Your task to perform on an android device: Go to eBay Image 0: 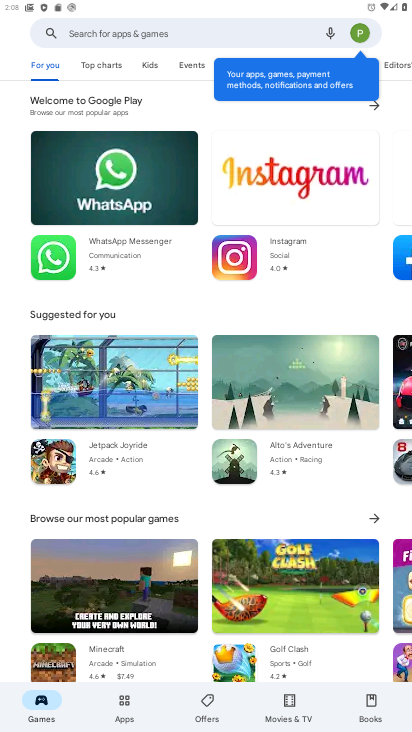
Step 0: press home button
Your task to perform on an android device: Go to eBay Image 1: 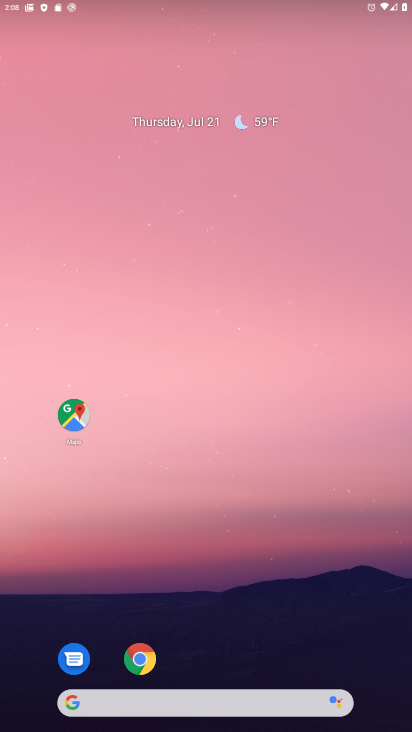
Step 1: drag from (350, 642) to (234, 58)
Your task to perform on an android device: Go to eBay Image 2: 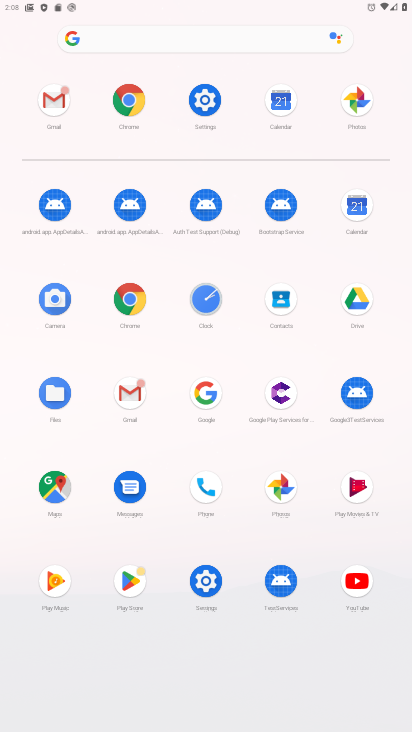
Step 2: click (134, 301)
Your task to perform on an android device: Go to eBay Image 3: 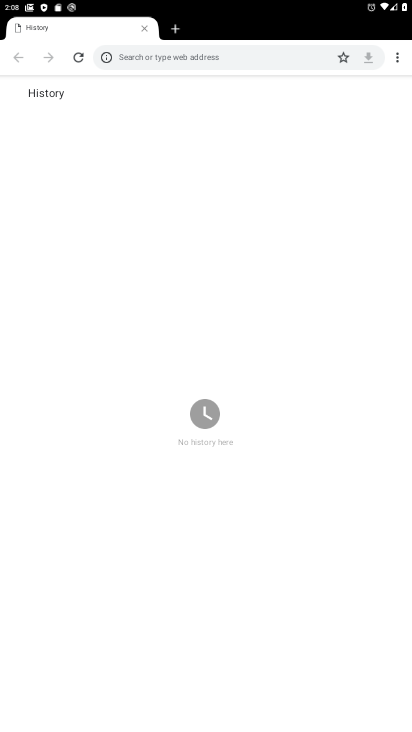
Step 3: click (287, 65)
Your task to perform on an android device: Go to eBay Image 4: 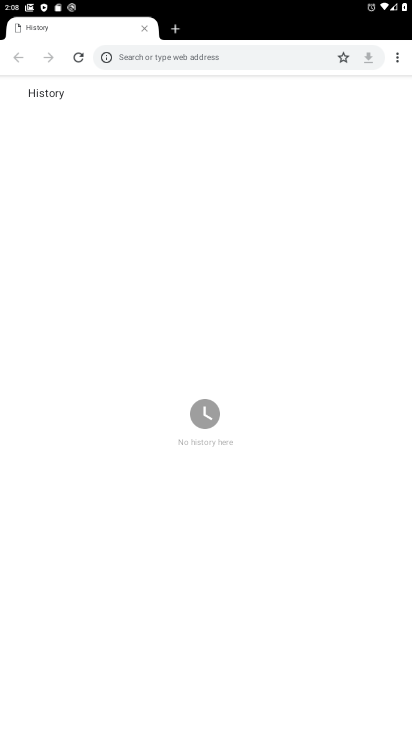
Step 4: click (285, 54)
Your task to perform on an android device: Go to eBay Image 5: 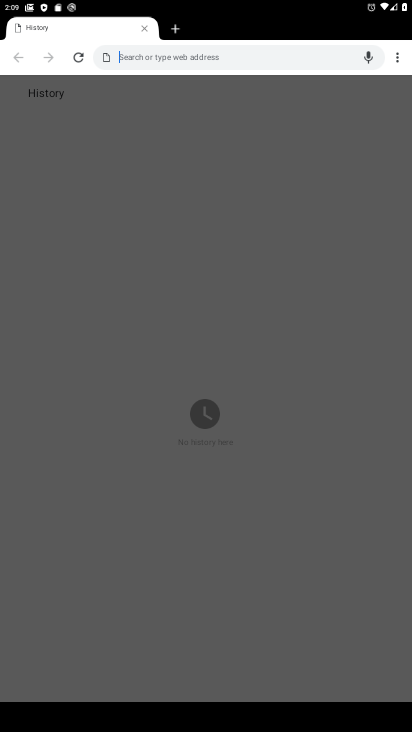
Step 5: type "ebay"
Your task to perform on an android device: Go to eBay Image 6: 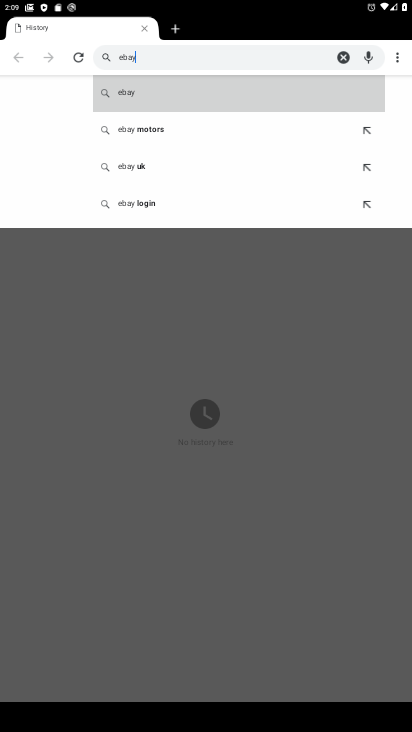
Step 6: click (138, 86)
Your task to perform on an android device: Go to eBay Image 7: 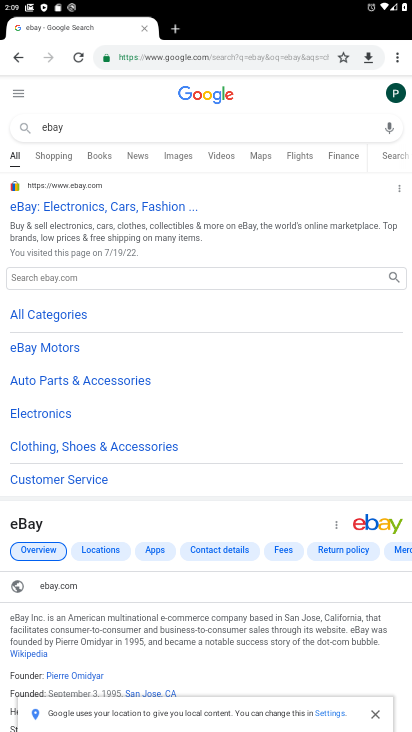
Step 7: click (78, 198)
Your task to perform on an android device: Go to eBay Image 8: 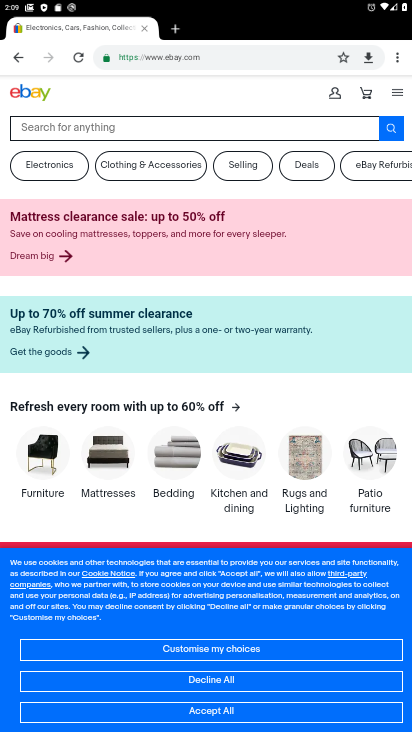
Step 8: task complete